Your task to perform on an android device: see tabs open on other devices in the chrome app Image 0: 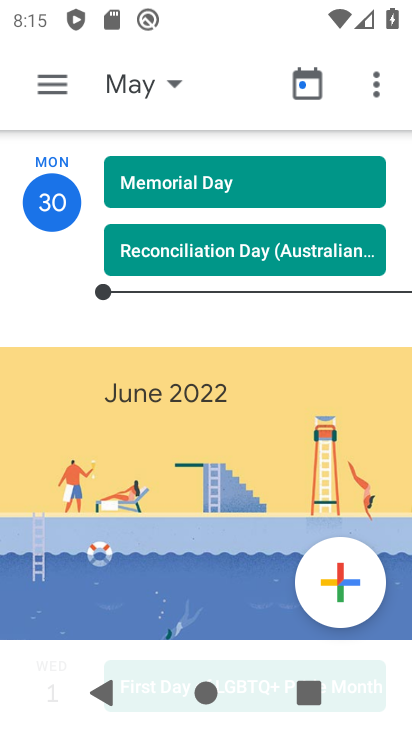
Step 0: press home button
Your task to perform on an android device: see tabs open on other devices in the chrome app Image 1: 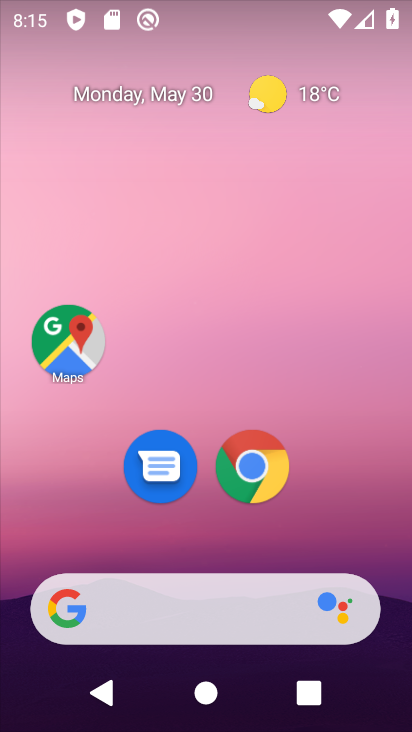
Step 1: click (251, 462)
Your task to perform on an android device: see tabs open on other devices in the chrome app Image 2: 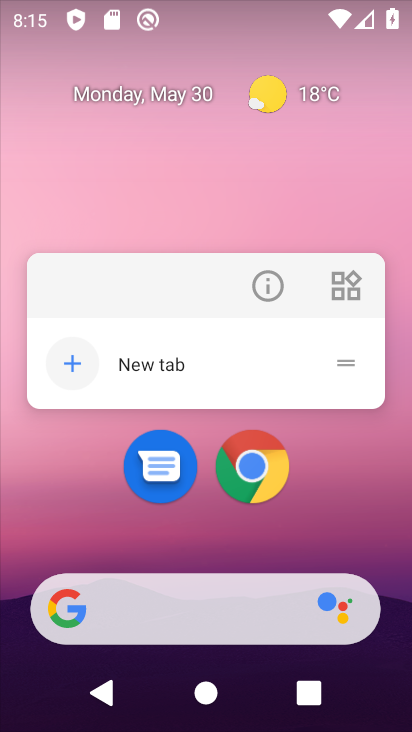
Step 2: click (251, 462)
Your task to perform on an android device: see tabs open on other devices in the chrome app Image 3: 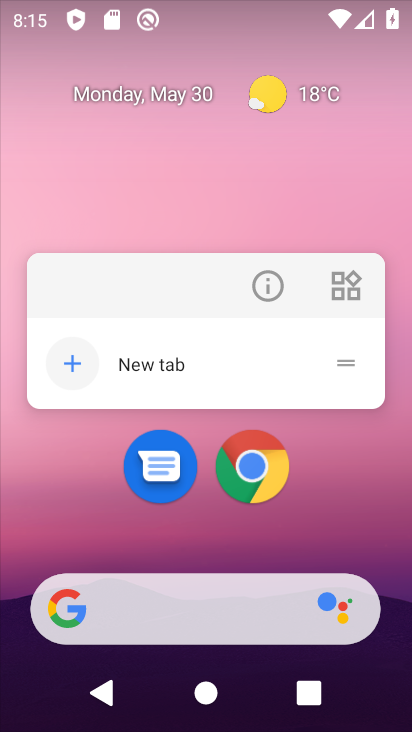
Step 3: click (334, 531)
Your task to perform on an android device: see tabs open on other devices in the chrome app Image 4: 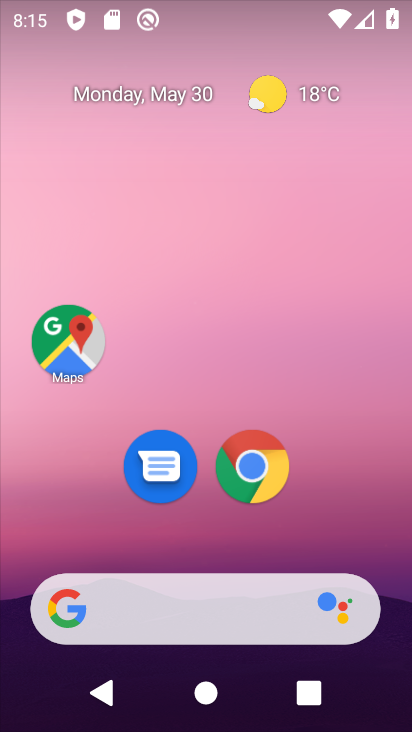
Step 4: drag from (334, 531) to (384, 93)
Your task to perform on an android device: see tabs open on other devices in the chrome app Image 5: 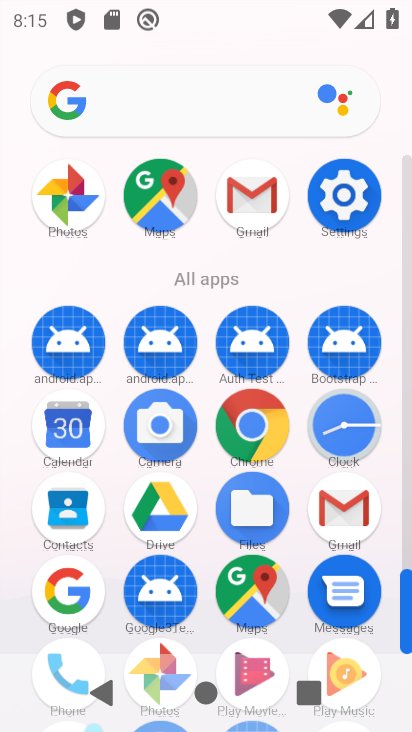
Step 5: click (235, 424)
Your task to perform on an android device: see tabs open on other devices in the chrome app Image 6: 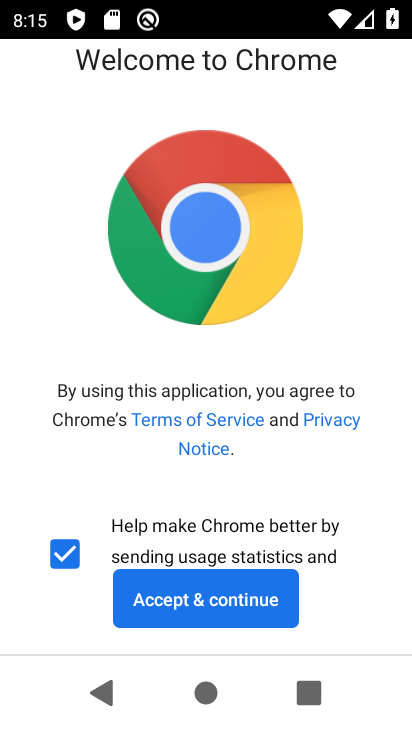
Step 6: click (241, 606)
Your task to perform on an android device: see tabs open on other devices in the chrome app Image 7: 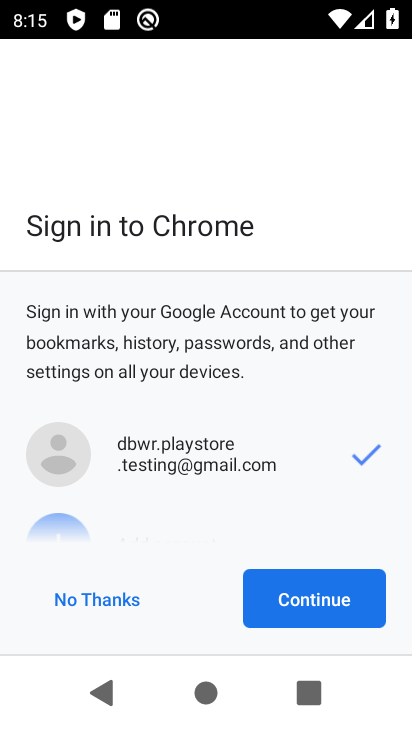
Step 7: click (288, 616)
Your task to perform on an android device: see tabs open on other devices in the chrome app Image 8: 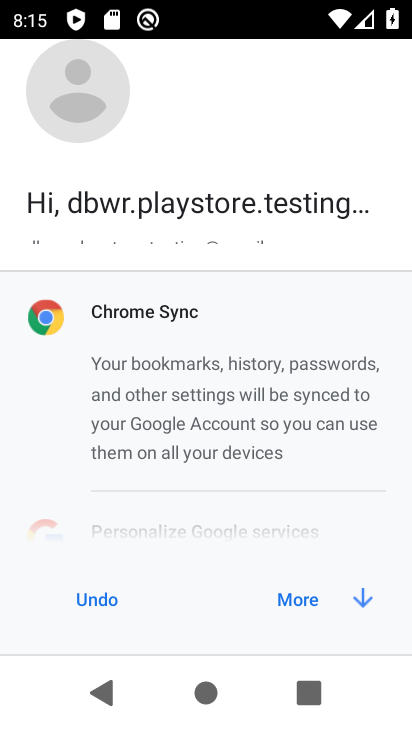
Step 8: click (290, 609)
Your task to perform on an android device: see tabs open on other devices in the chrome app Image 9: 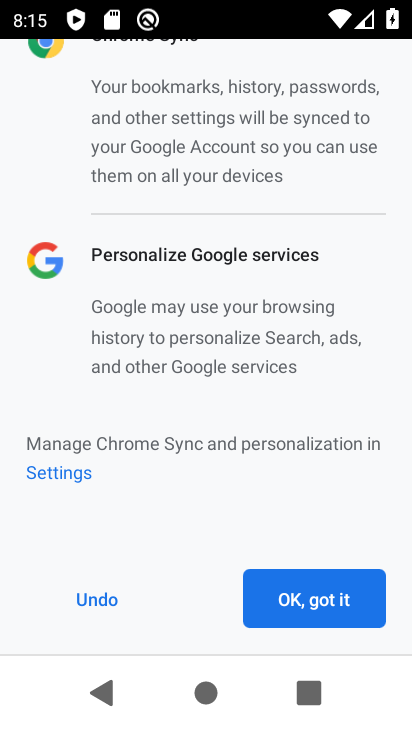
Step 9: click (290, 609)
Your task to perform on an android device: see tabs open on other devices in the chrome app Image 10: 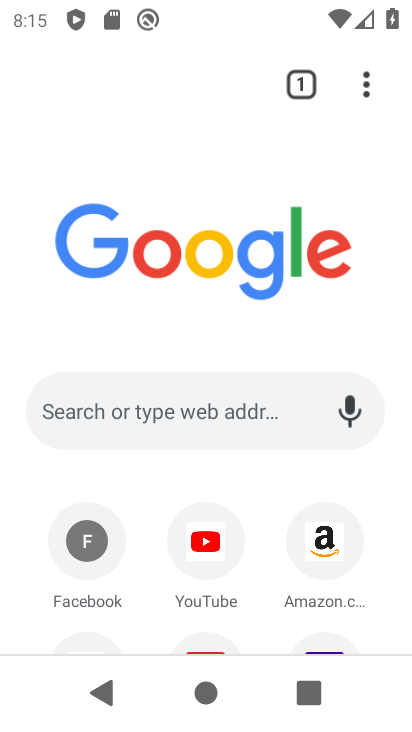
Step 10: drag from (362, 82) to (37, 401)
Your task to perform on an android device: see tabs open on other devices in the chrome app Image 11: 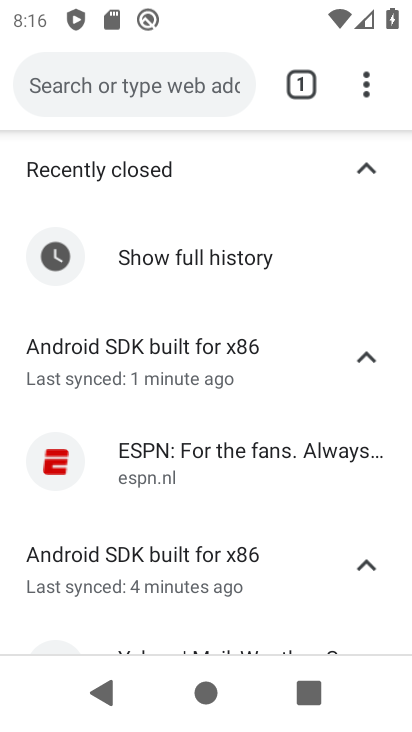
Step 11: click (376, 351)
Your task to perform on an android device: see tabs open on other devices in the chrome app Image 12: 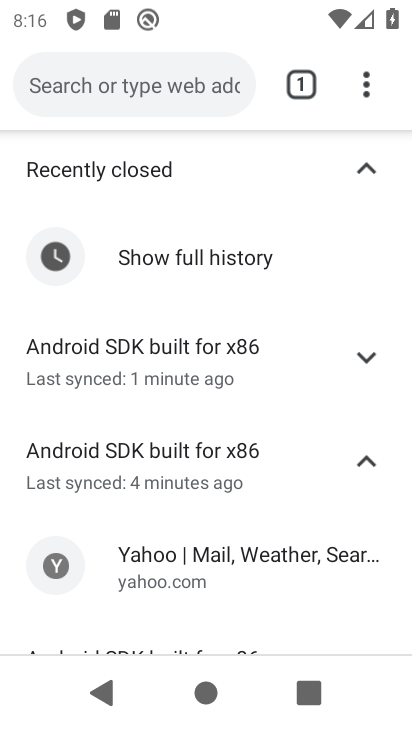
Step 12: task complete